Your task to perform on an android device: toggle translation in the chrome app Image 0: 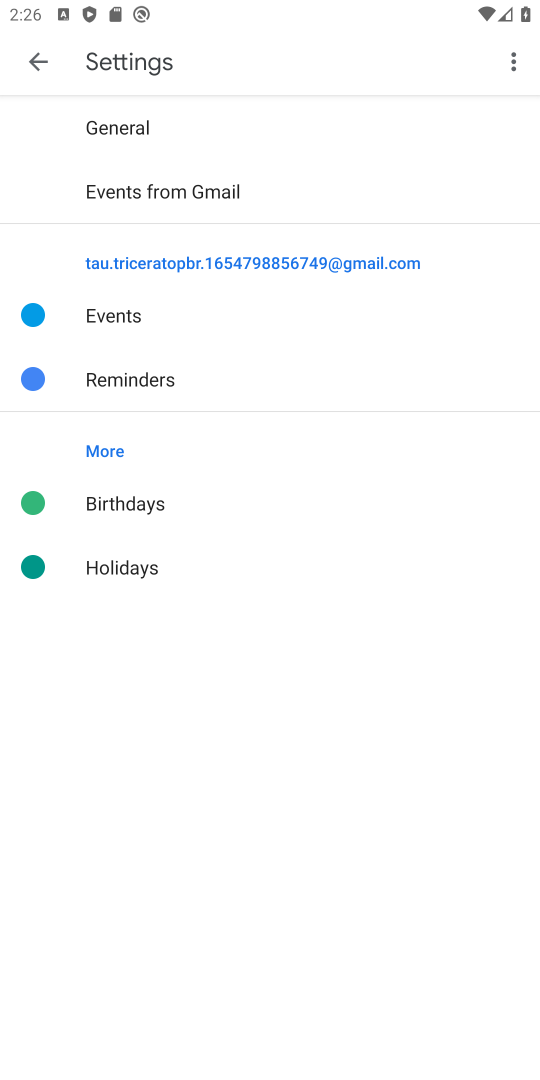
Step 0: press home button
Your task to perform on an android device: toggle translation in the chrome app Image 1: 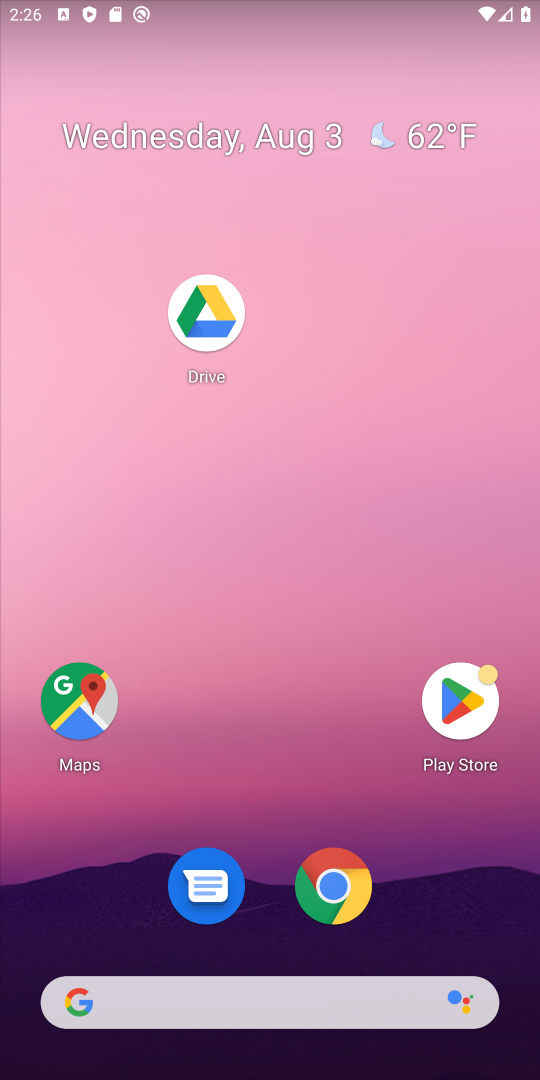
Step 1: drag from (348, 800) to (249, 13)
Your task to perform on an android device: toggle translation in the chrome app Image 2: 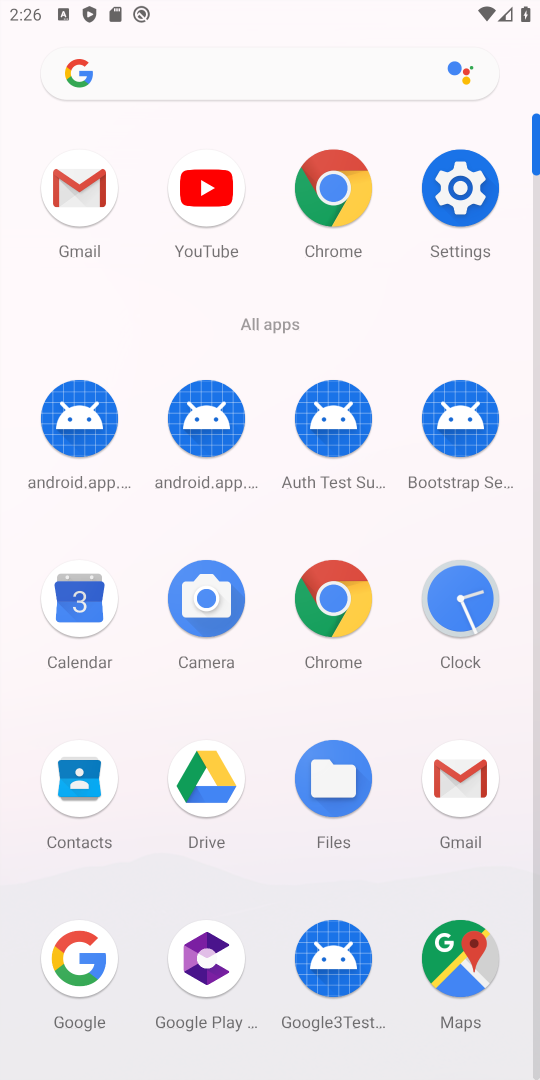
Step 2: click (342, 588)
Your task to perform on an android device: toggle translation in the chrome app Image 3: 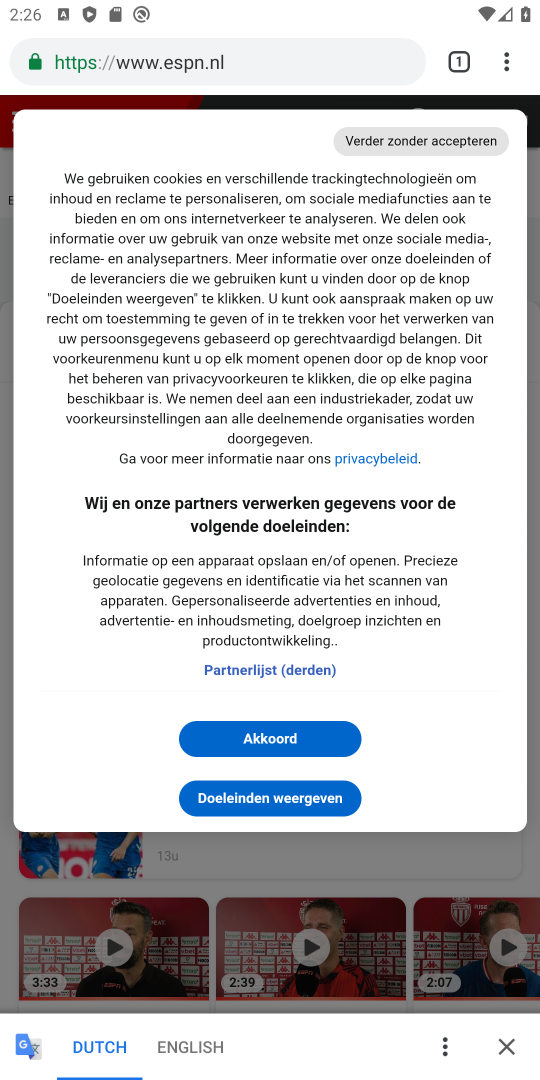
Step 3: drag from (512, 56) to (306, 172)
Your task to perform on an android device: toggle translation in the chrome app Image 4: 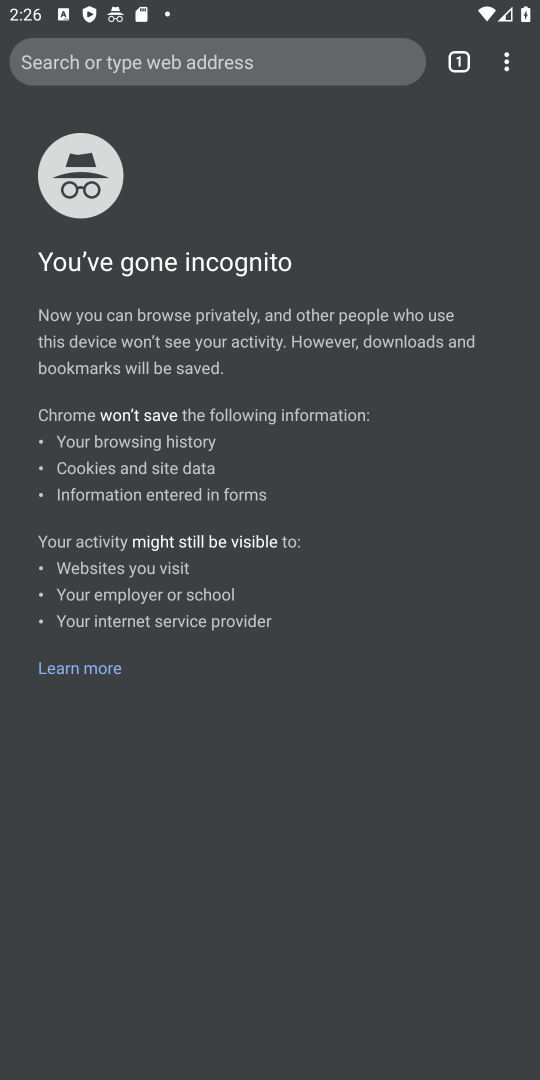
Step 4: click (505, 59)
Your task to perform on an android device: toggle translation in the chrome app Image 5: 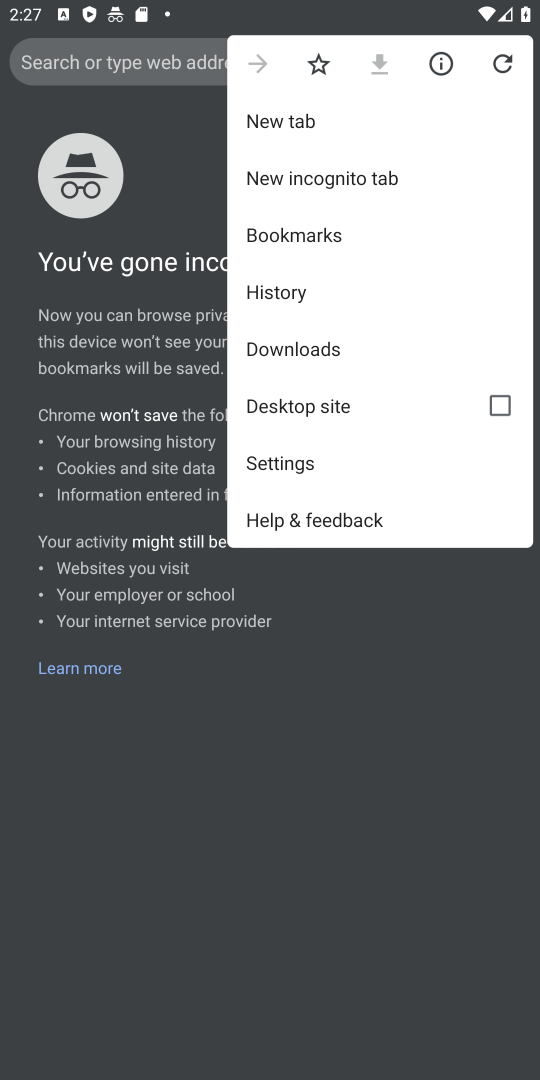
Step 5: click (462, 716)
Your task to perform on an android device: toggle translation in the chrome app Image 6: 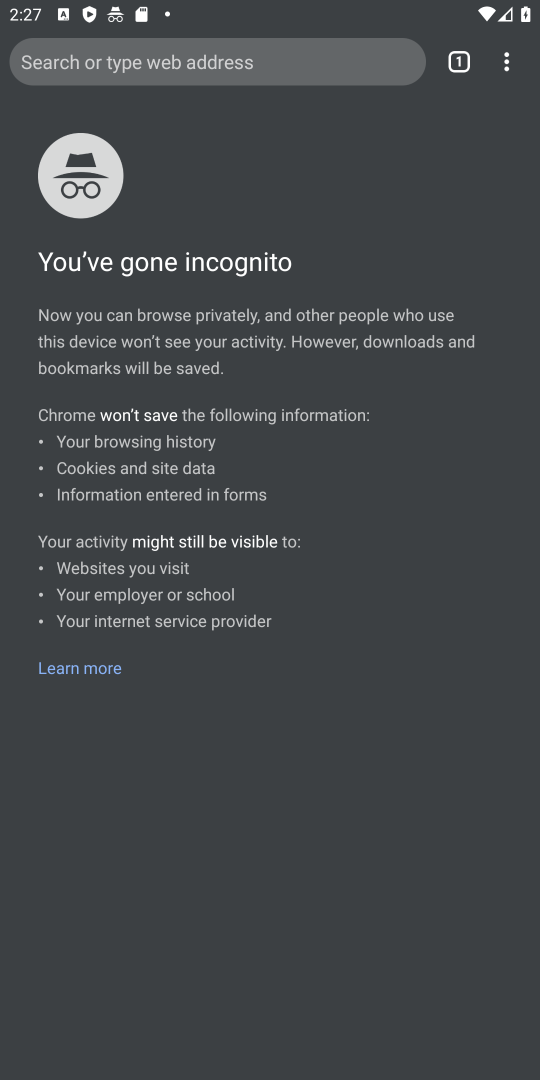
Step 6: click (514, 59)
Your task to perform on an android device: toggle translation in the chrome app Image 7: 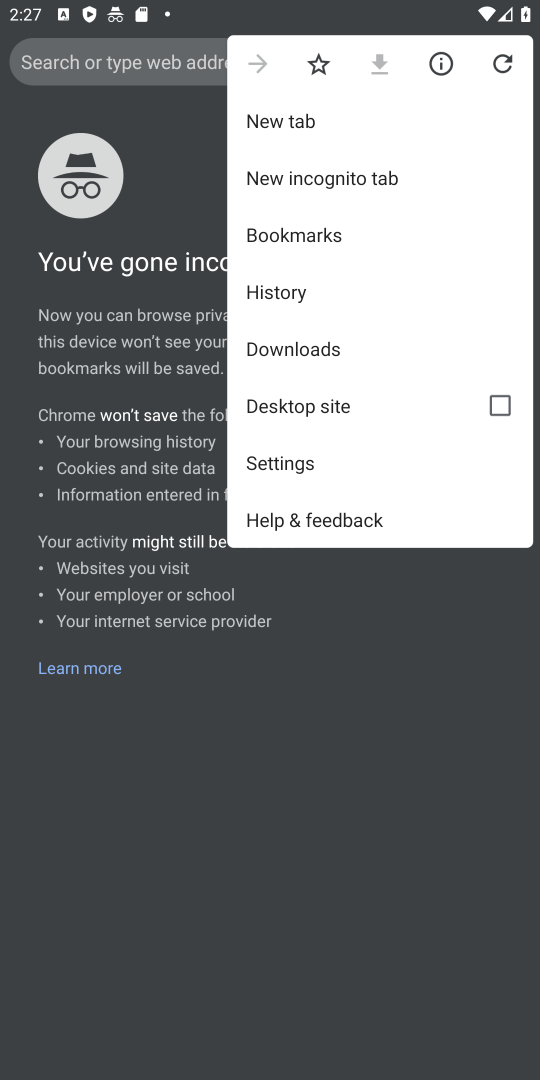
Step 7: click (326, 465)
Your task to perform on an android device: toggle translation in the chrome app Image 8: 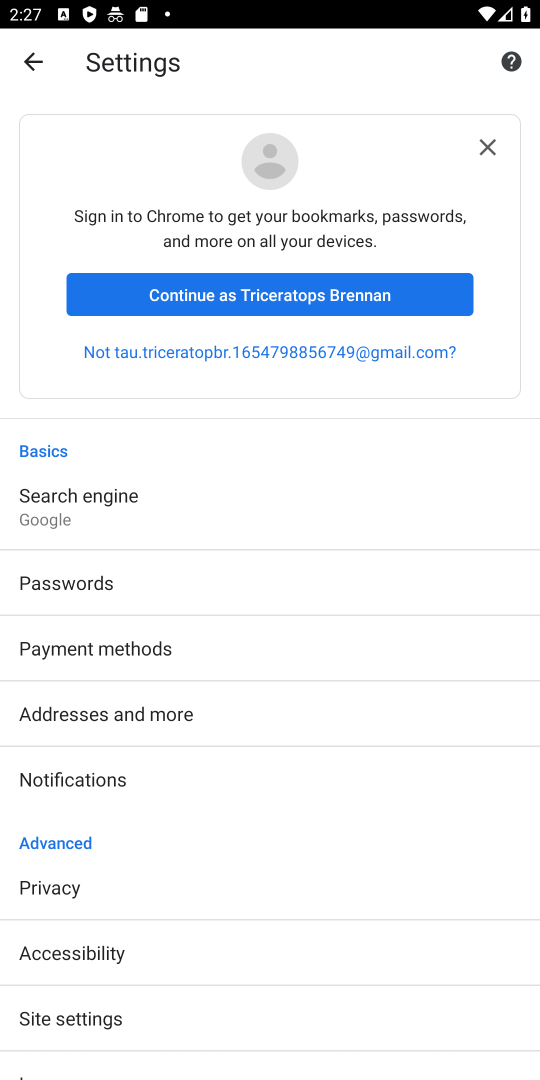
Step 8: drag from (125, 651) to (117, 66)
Your task to perform on an android device: toggle translation in the chrome app Image 9: 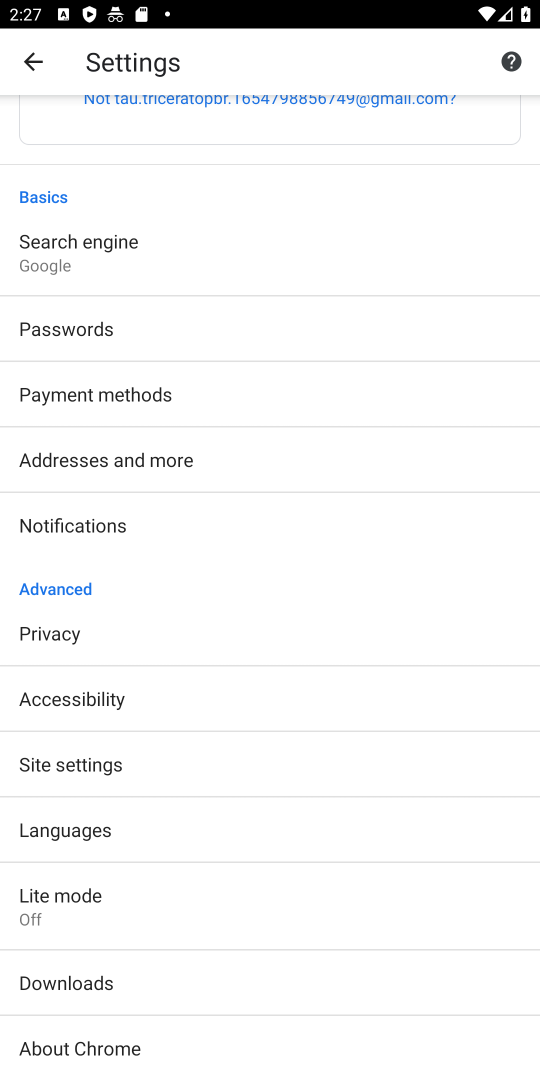
Step 9: click (139, 831)
Your task to perform on an android device: toggle translation in the chrome app Image 10: 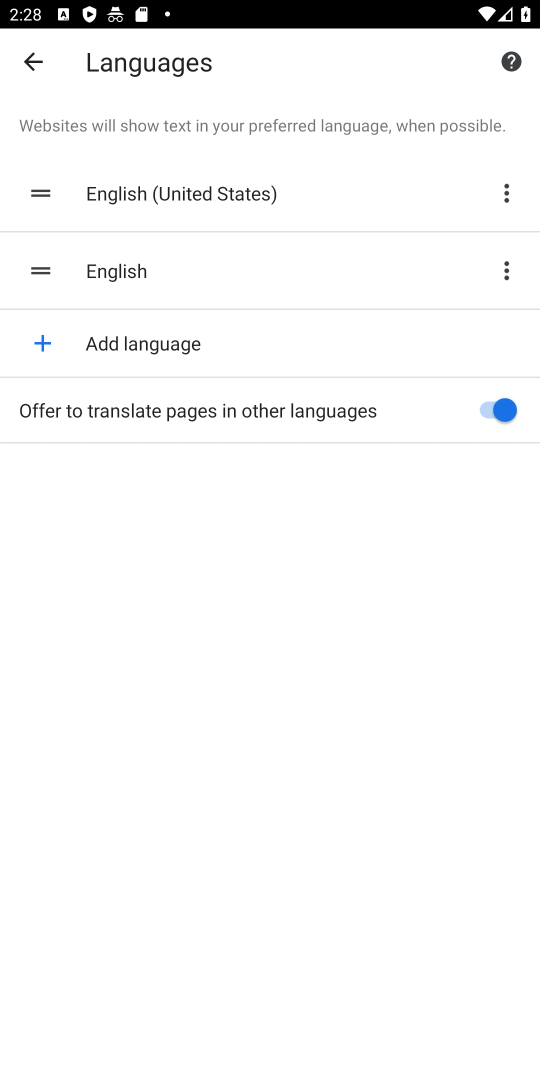
Step 10: click (504, 408)
Your task to perform on an android device: toggle translation in the chrome app Image 11: 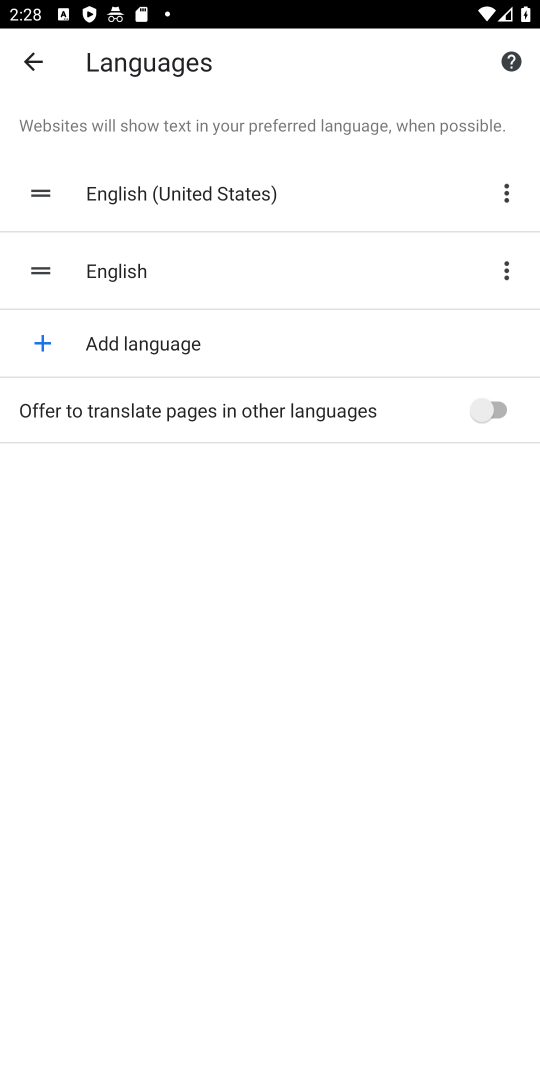
Step 11: task complete